Your task to perform on an android device: Go to display settings Image 0: 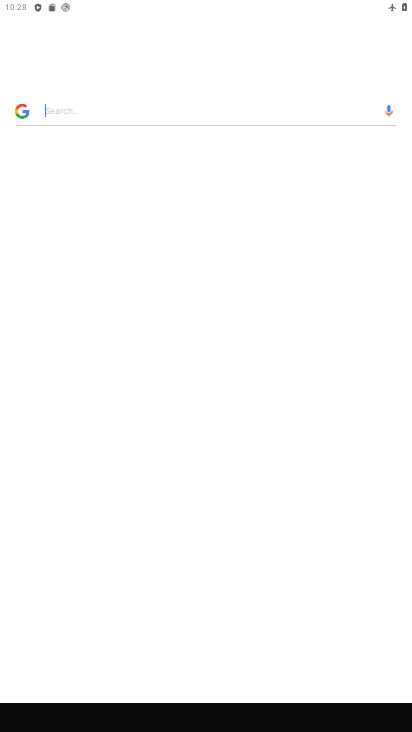
Step 0: drag from (214, 680) to (216, 351)
Your task to perform on an android device: Go to display settings Image 1: 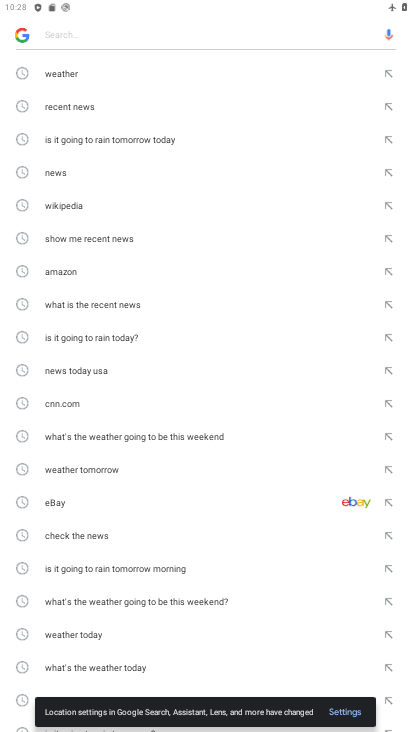
Step 1: press back button
Your task to perform on an android device: Go to display settings Image 2: 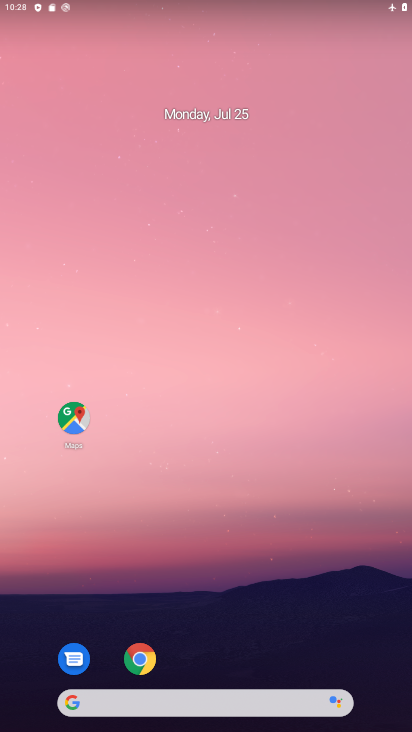
Step 2: drag from (229, 679) to (203, 174)
Your task to perform on an android device: Go to display settings Image 3: 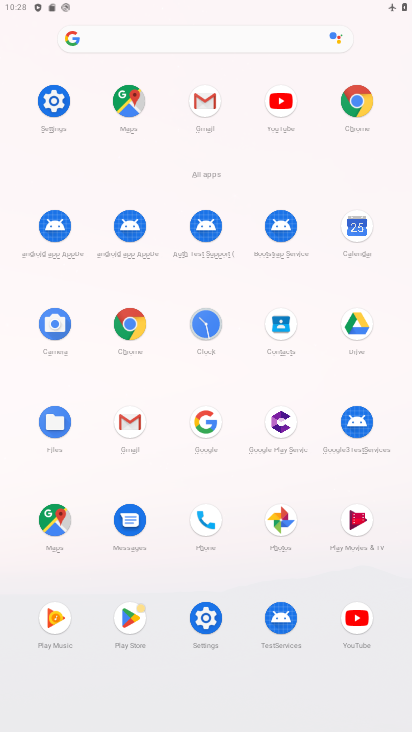
Step 3: click (199, 621)
Your task to perform on an android device: Go to display settings Image 4: 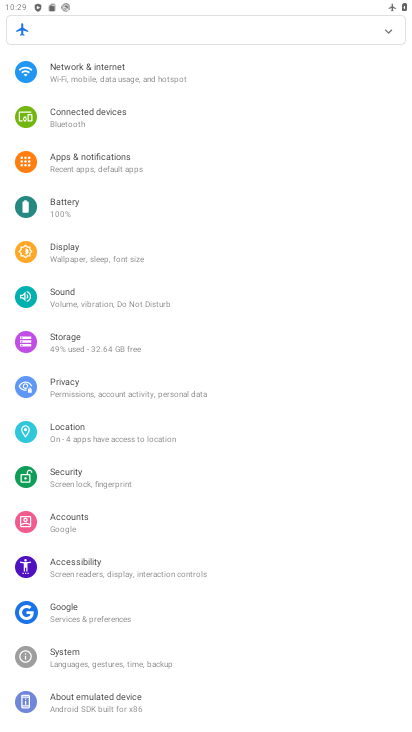
Step 4: click (66, 259)
Your task to perform on an android device: Go to display settings Image 5: 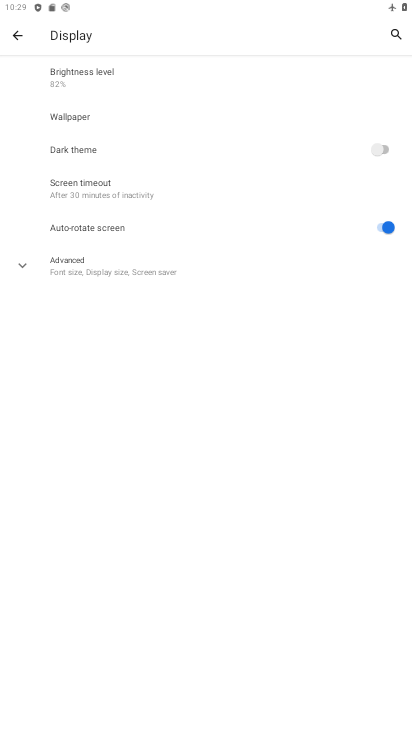
Step 5: task complete